Your task to perform on an android device: change timer sound Image 0: 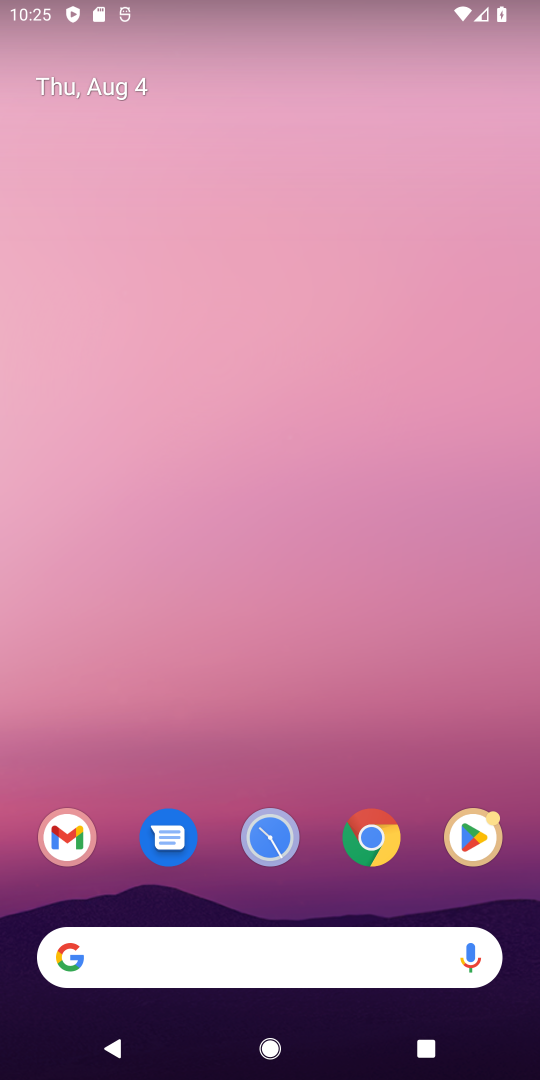
Step 0: drag from (450, 902) to (261, 129)
Your task to perform on an android device: change timer sound Image 1: 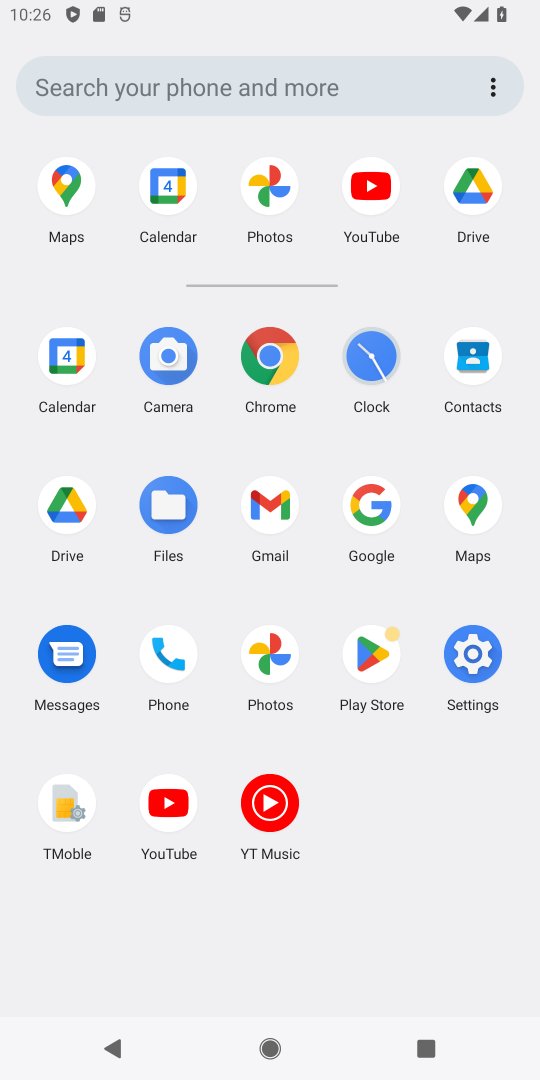
Step 1: click (376, 375)
Your task to perform on an android device: change timer sound Image 2: 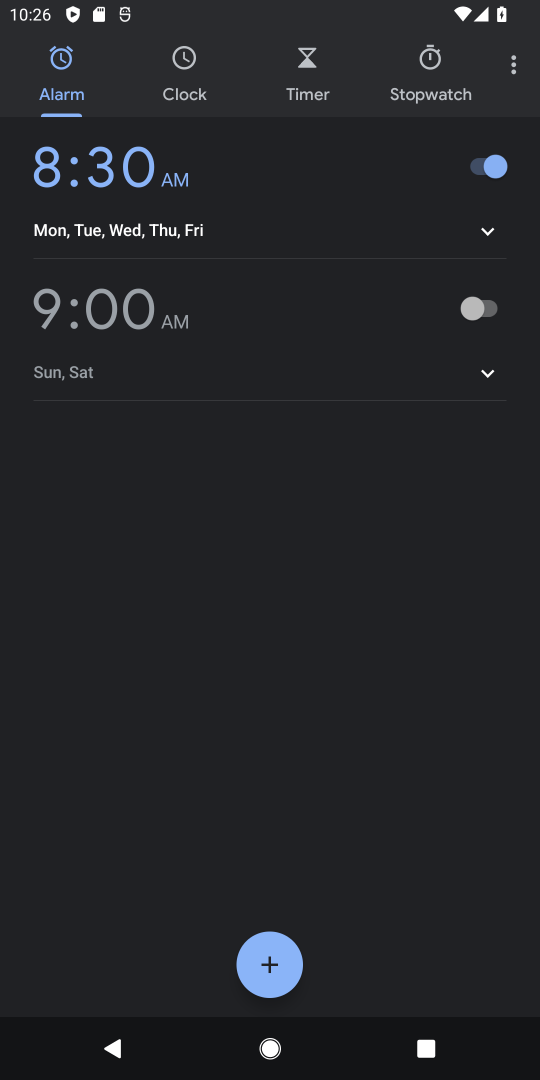
Step 2: click (512, 60)
Your task to perform on an android device: change timer sound Image 3: 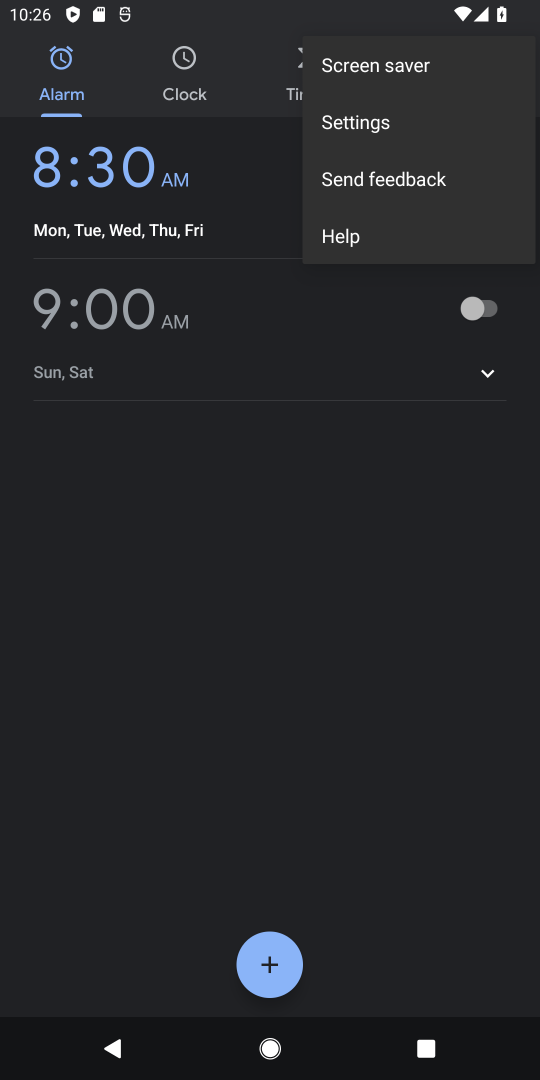
Step 3: click (362, 119)
Your task to perform on an android device: change timer sound Image 4: 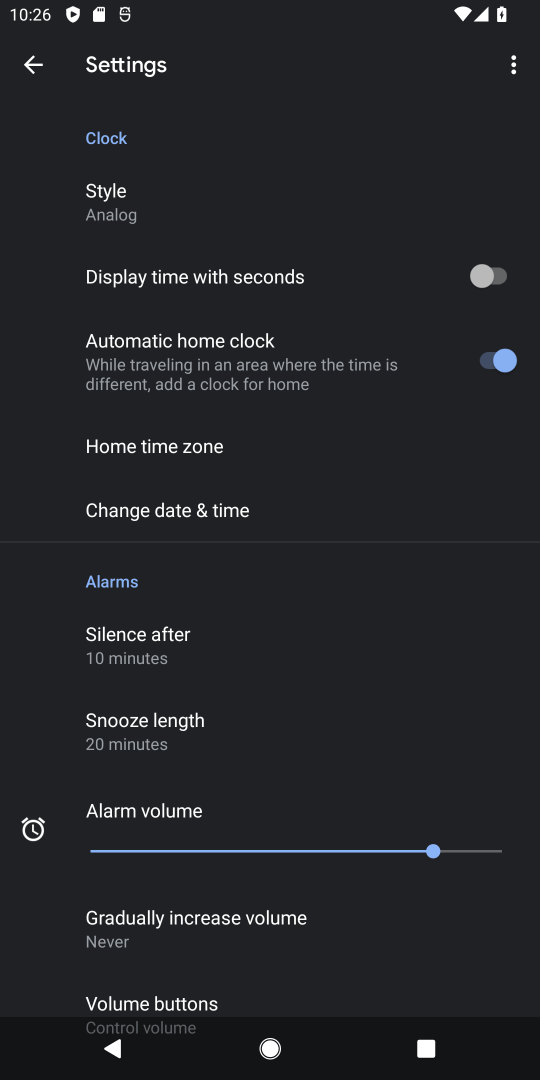
Step 4: drag from (217, 797) to (179, 204)
Your task to perform on an android device: change timer sound Image 5: 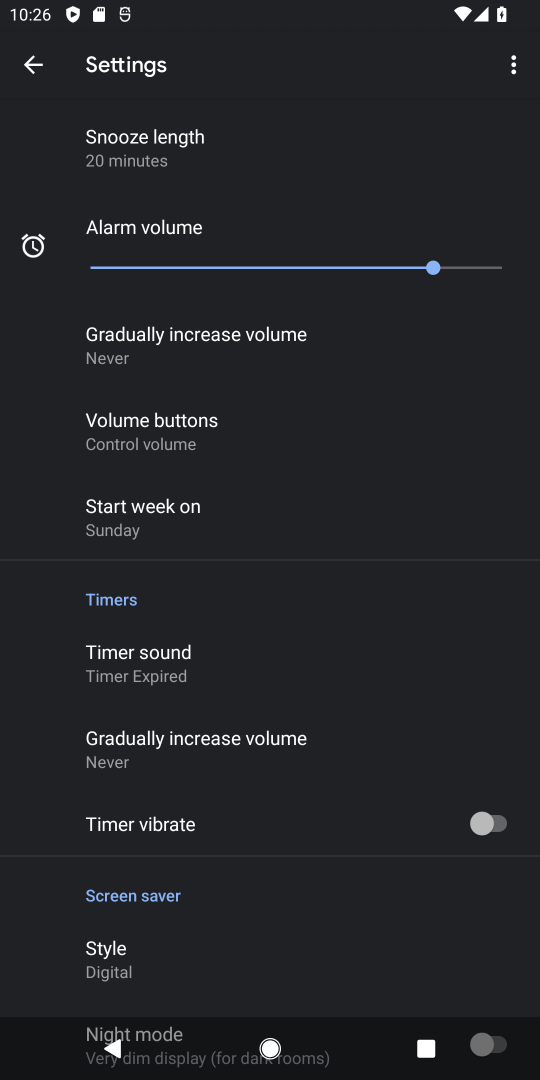
Step 5: click (163, 666)
Your task to perform on an android device: change timer sound Image 6: 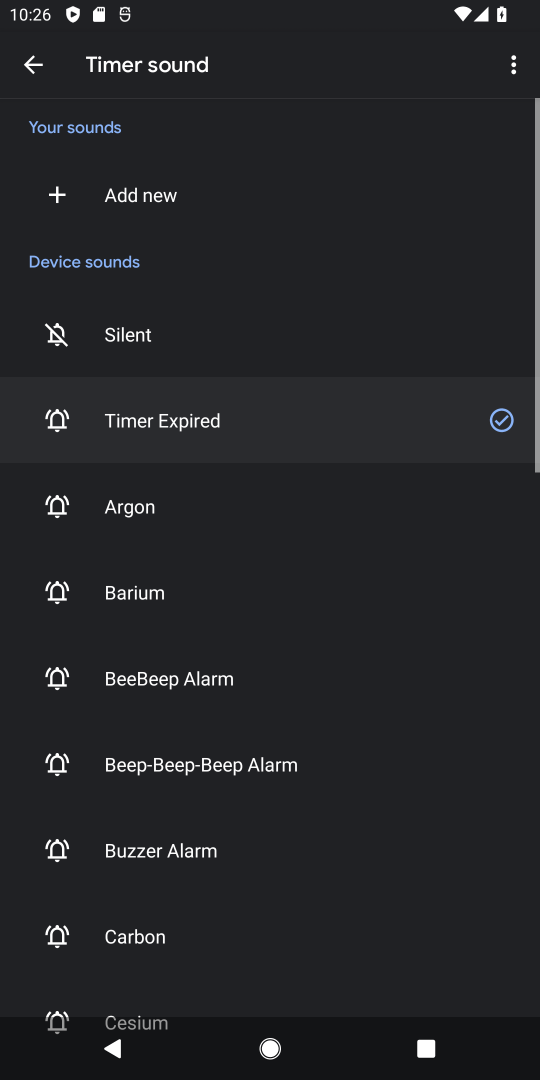
Step 6: click (180, 690)
Your task to perform on an android device: change timer sound Image 7: 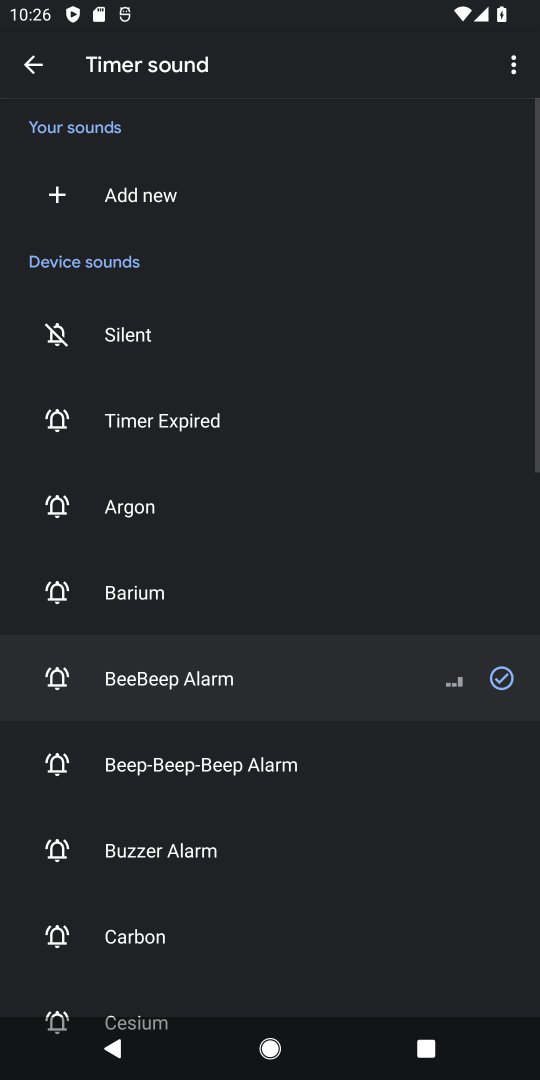
Step 7: task complete